Your task to perform on an android device: make emails show in primary in the gmail app Image 0: 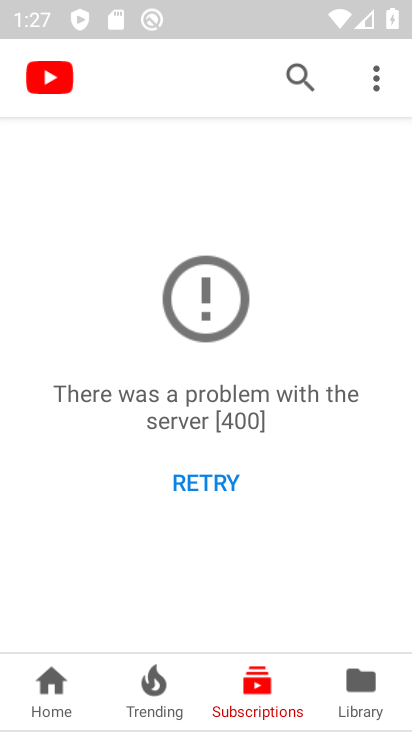
Step 0: press home button
Your task to perform on an android device: make emails show in primary in the gmail app Image 1: 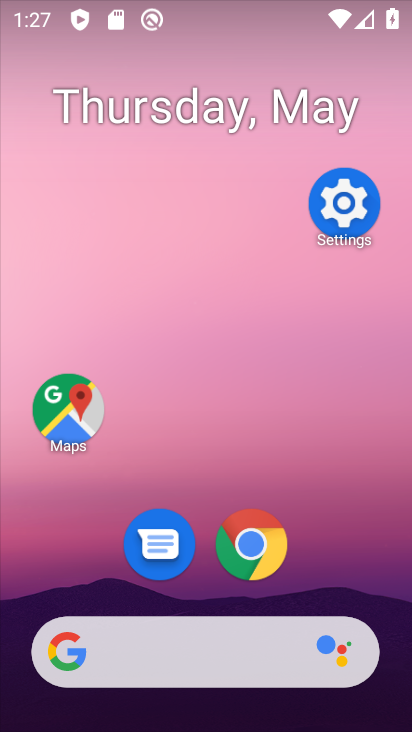
Step 1: drag from (327, 552) to (411, 83)
Your task to perform on an android device: make emails show in primary in the gmail app Image 2: 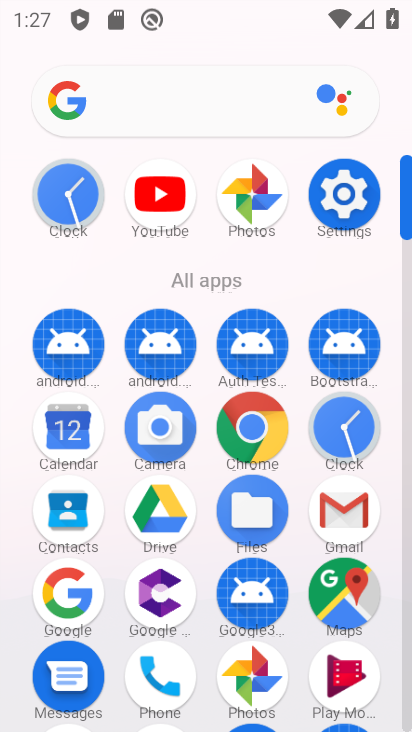
Step 2: click (329, 528)
Your task to perform on an android device: make emails show in primary in the gmail app Image 3: 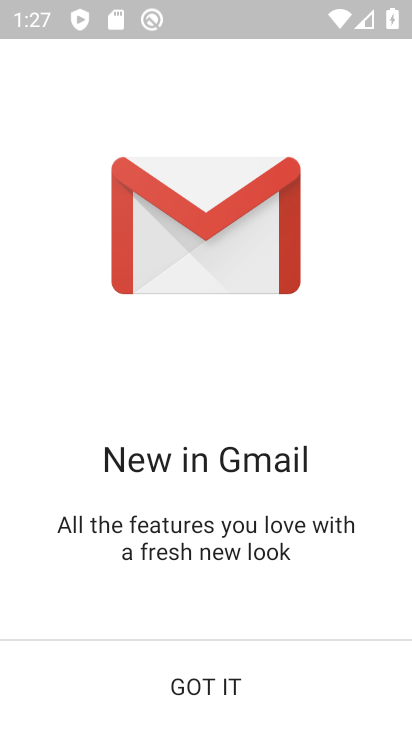
Step 3: click (242, 690)
Your task to perform on an android device: make emails show in primary in the gmail app Image 4: 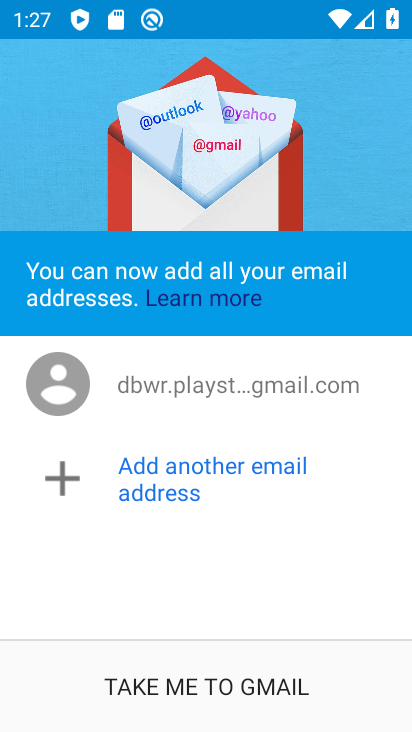
Step 4: click (242, 689)
Your task to perform on an android device: make emails show in primary in the gmail app Image 5: 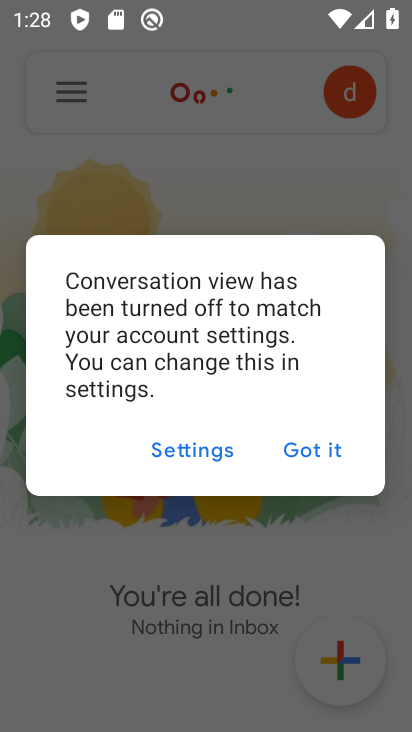
Step 5: click (311, 456)
Your task to perform on an android device: make emails show in primary in the gmail app Image 6: 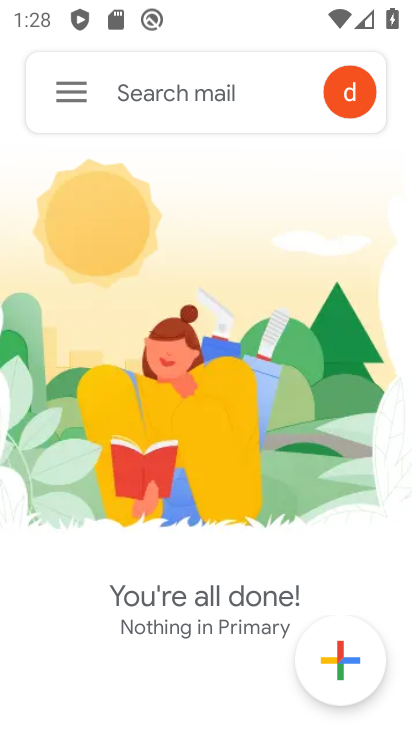
Step 6: click (51, 90)
Your task to perform on an android device: make emails show in primary in the gmail app Image 7: 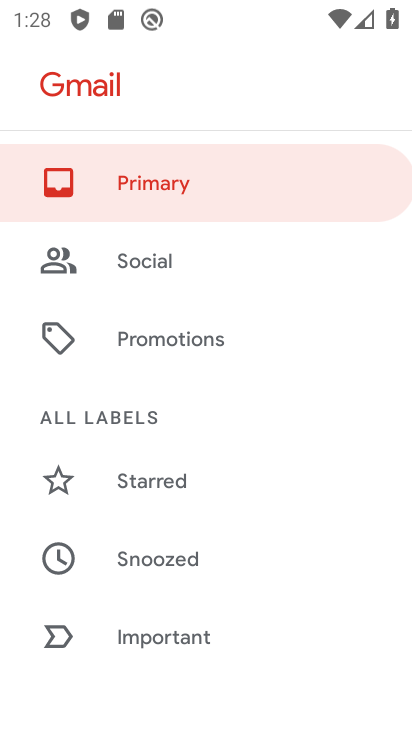
Step 7: click (135, 184)
Your task to perform on an android device: make emails show in primary in the gmail app Image 8: 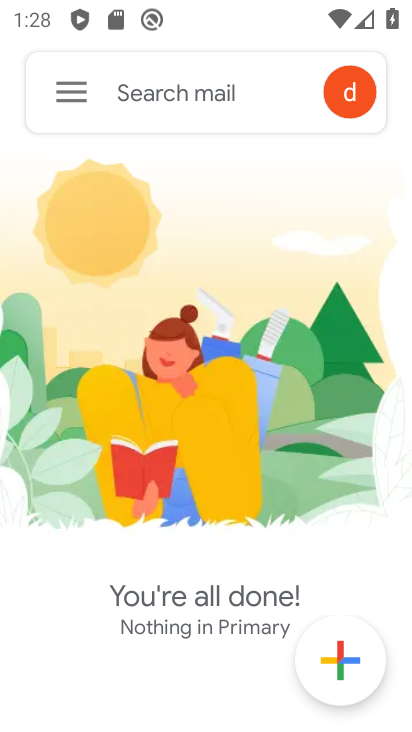
Step 8: task complete